Your task to perform on an android device: turn off improve location accuracy Image 0: 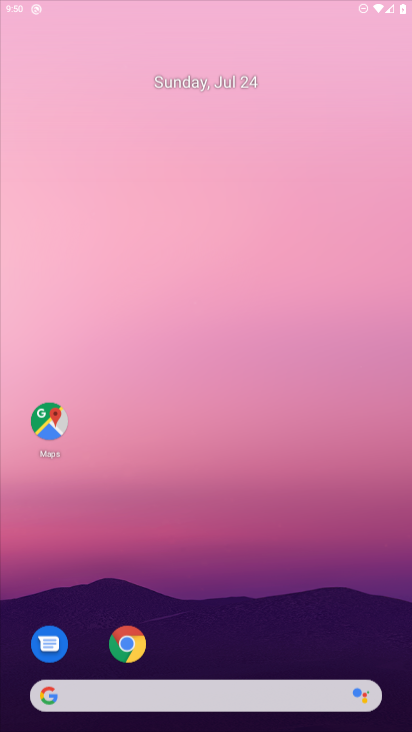
Step 0: press home button
Your task to perform on an android device: turn off improve location accuracy Image 1: 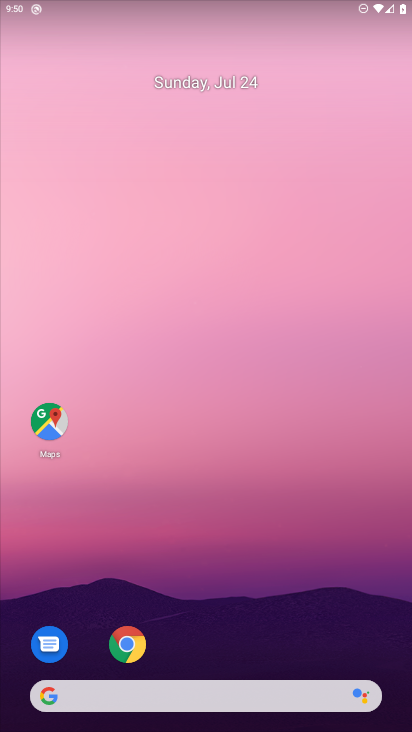
Step 1: drag from (328, 611) to (290, 0)
Your task to perform on an android device: turn off improve location accuracy Image 2: 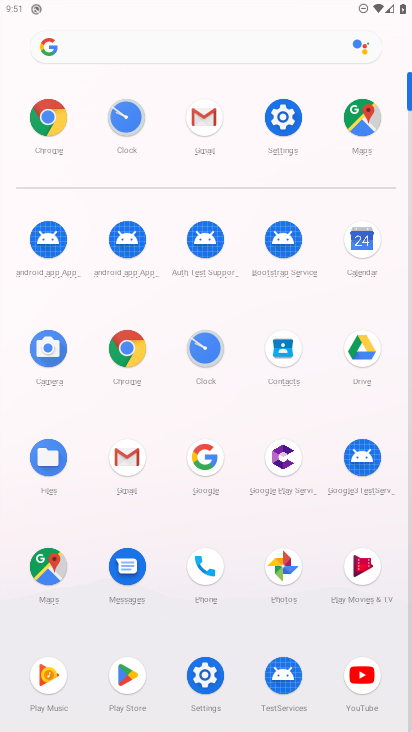
Step 2: click (197, 675)
Your task to perform on an android device: turn off improve location accuracy Image 3: 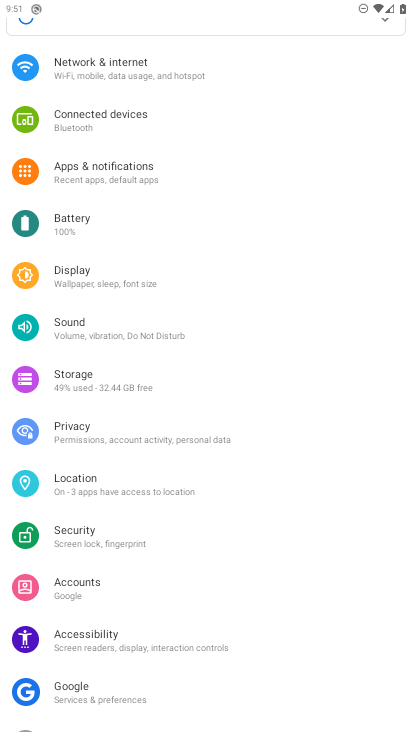
Step 3: drag from (143, 426) to (231, 131)
Your task to perform on an android device: turn off improve location accuracy Image 4: 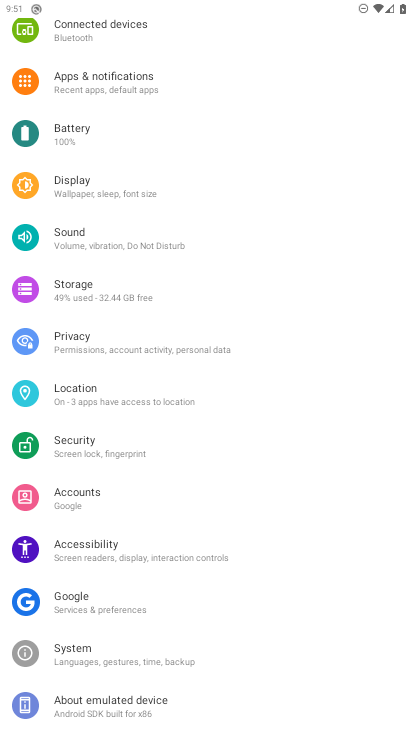
Step 4: click (90, 390)
Your task to perform on an android device: turn off improve location accuracy Image 5: 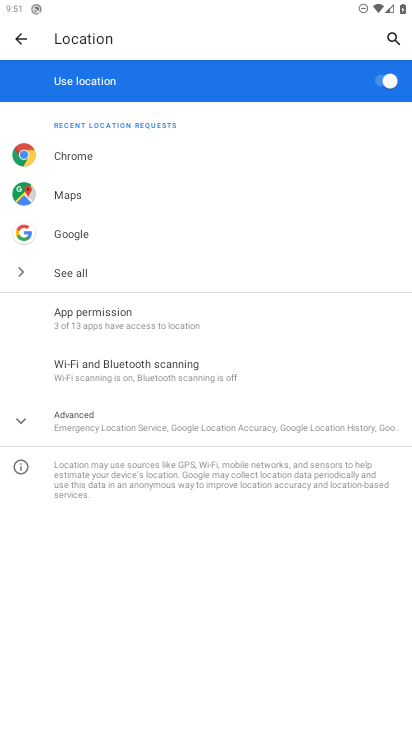
Step 5: click (93, 408)
Your task to perform on an android device: turn off improve location accuracy Image 6: 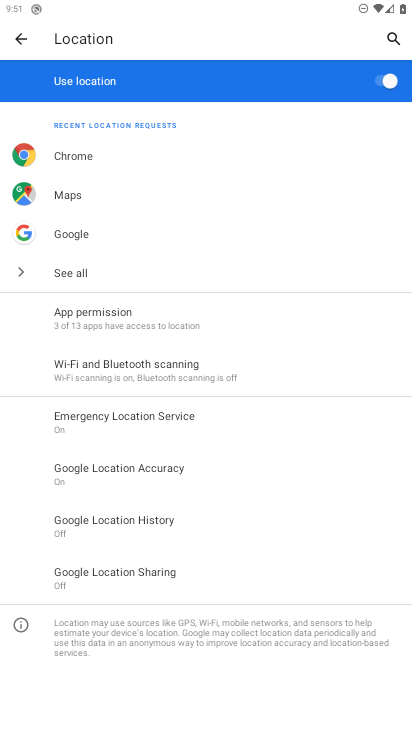
Step 6: click (123, 465)
Your task to perform on an android device: turn off improve location accuracy Image 7: 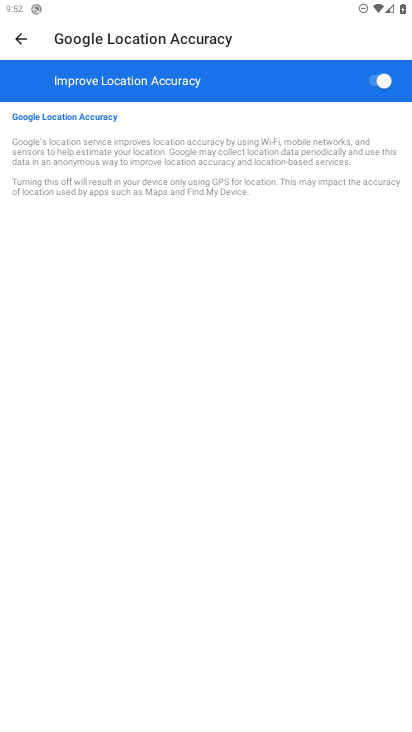
Step 7: click (153, 82)
Your task to perform on an android device: turn off improve location accuracy Image 8: 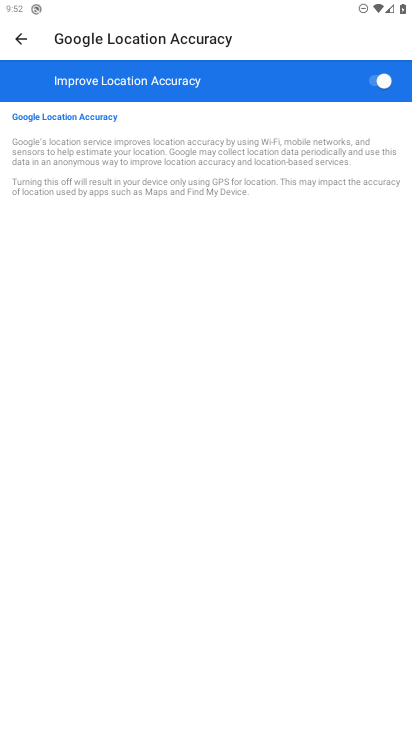
Step 8: task complete